Your task to perform on an android device: Go to eBay Image 0: 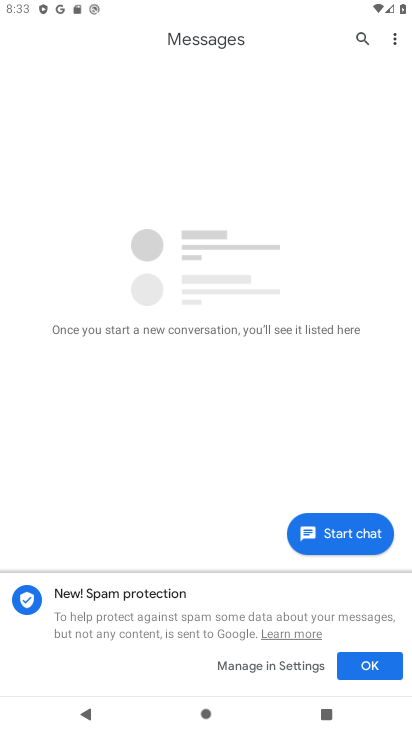
Step 0: press home button
Your task to perform on an android device: Go to eBay Image 1: 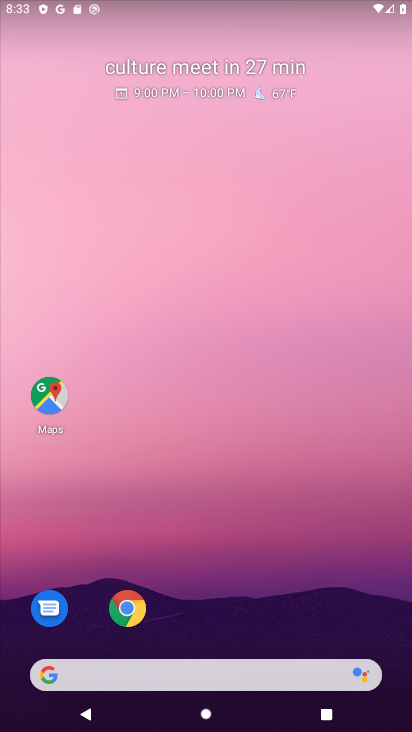
Step 1: click (205, 665)
Your task to perform on an android device: Go to eBay Image 2: 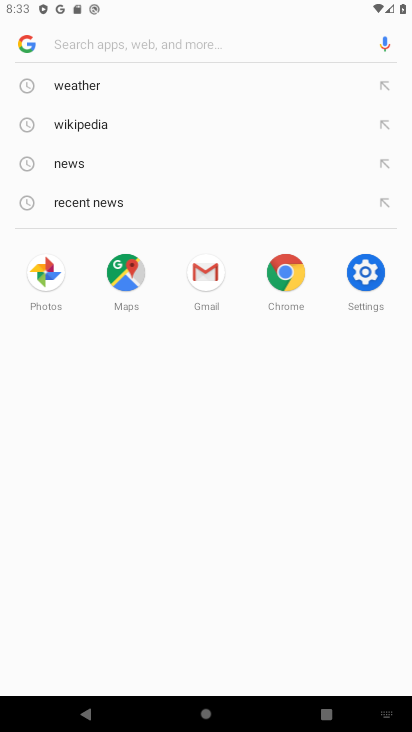
Step 2: type "ebay.com"
Your task to perform on an android device: Go to eBay Image 3: 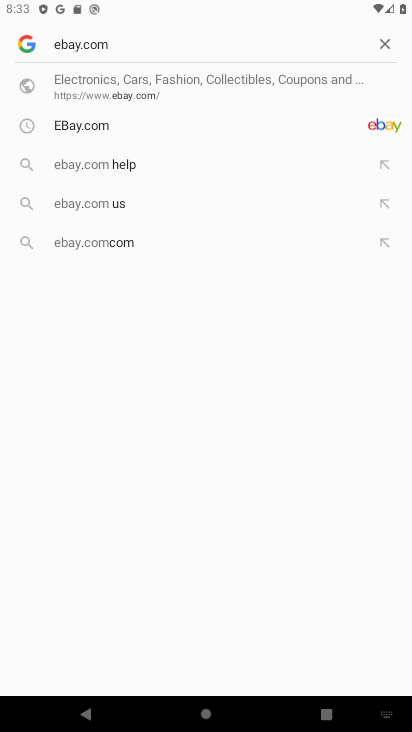
Step 3: click (224, 127)
Your task to perform on an android device: Go to eBay Image 4: 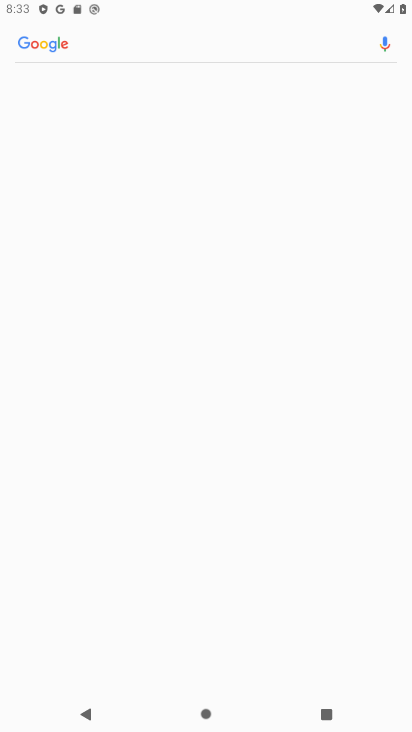
Step 4: task complete